Your task to perform on an android device: allow notifications from all sites in the chrome app Image 0: 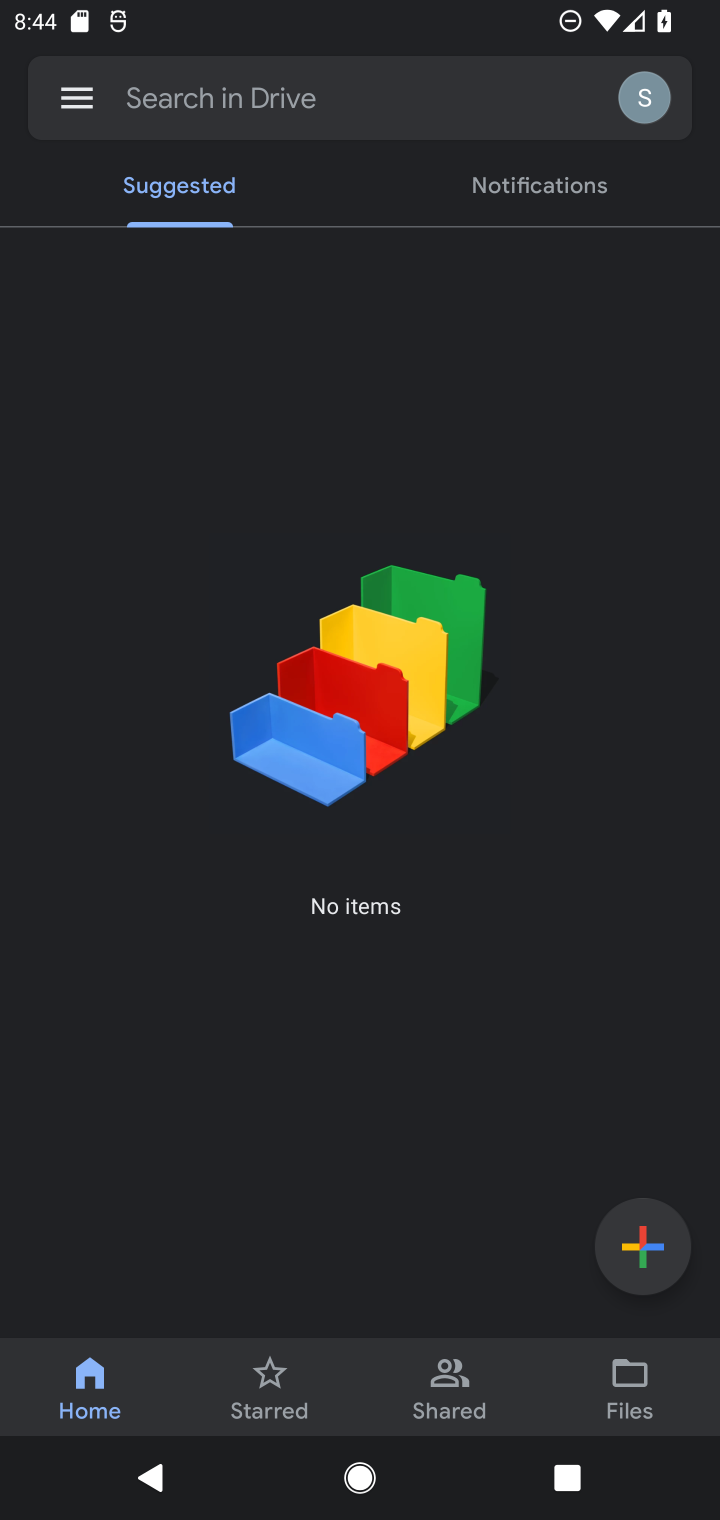
Step 0: press home button
Your task to perform on an android device: allow notifications from all sites in the chrome app Image 1: 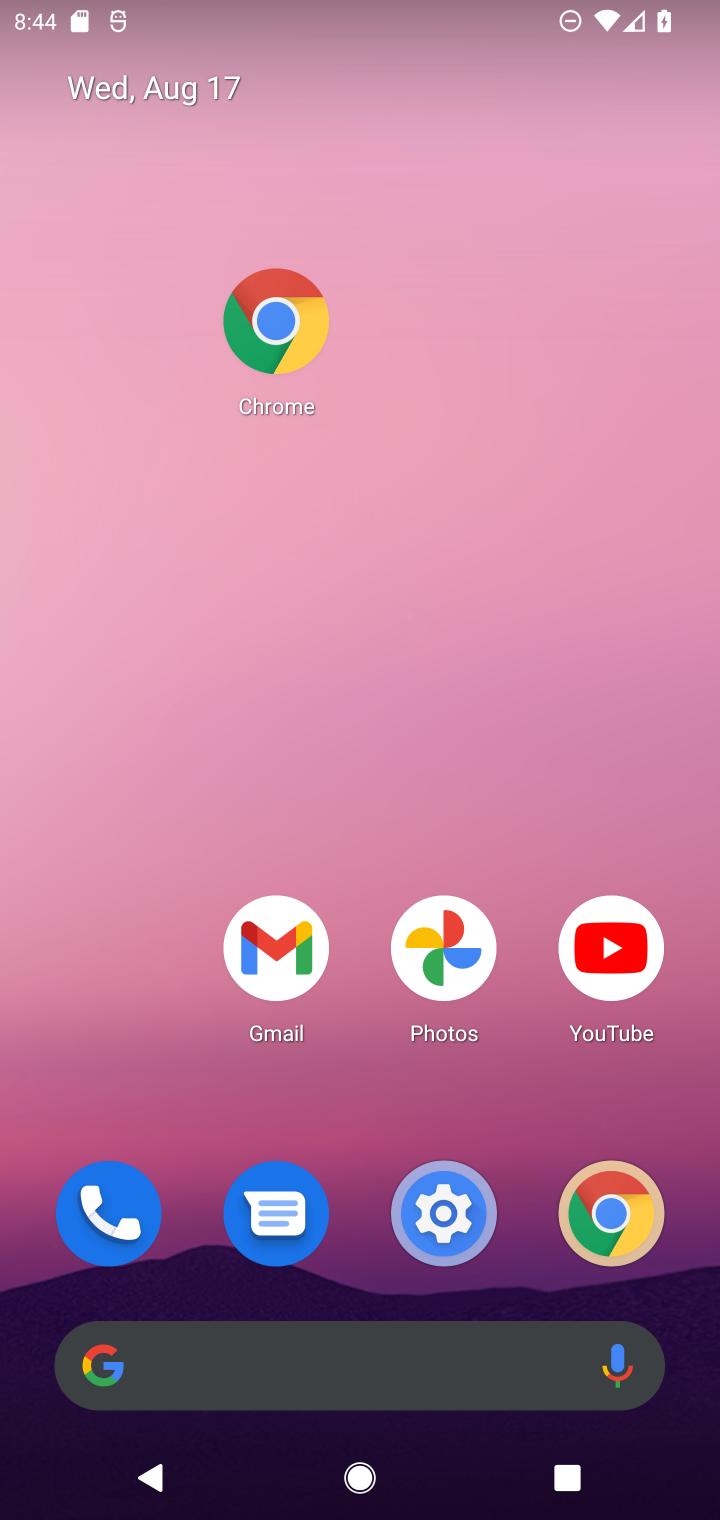
Step 1: click (634, 1211)
Your task to perform on an android device: allow notifications from all sites in the chrome app Image 2: 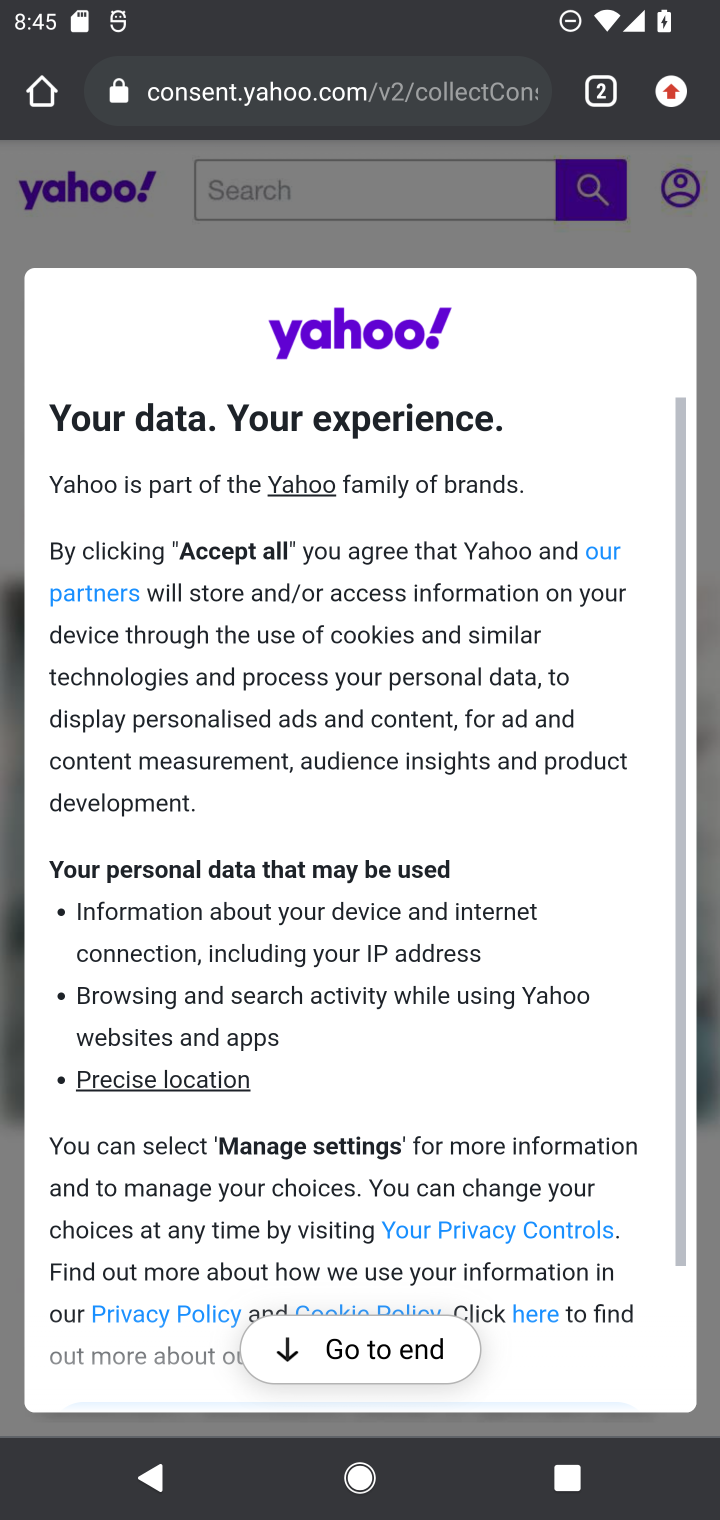
Step 2: press home button
Your task to perform on an android device: allow notifications from all sites in the chrome app Image 3: 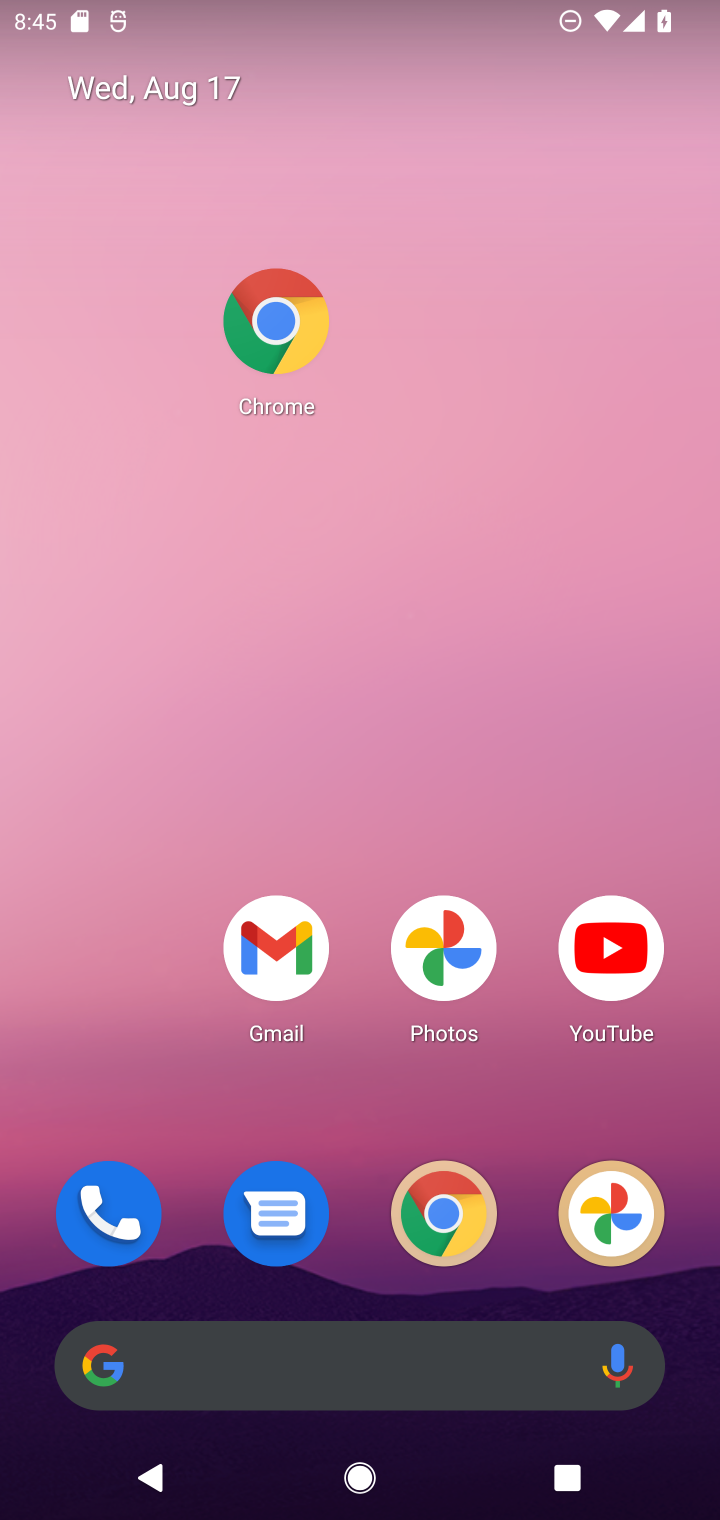
Step 3: click (415, 1175)
Your task to perform on an android device: allow notifications from all sites in the chrome app Image 4: 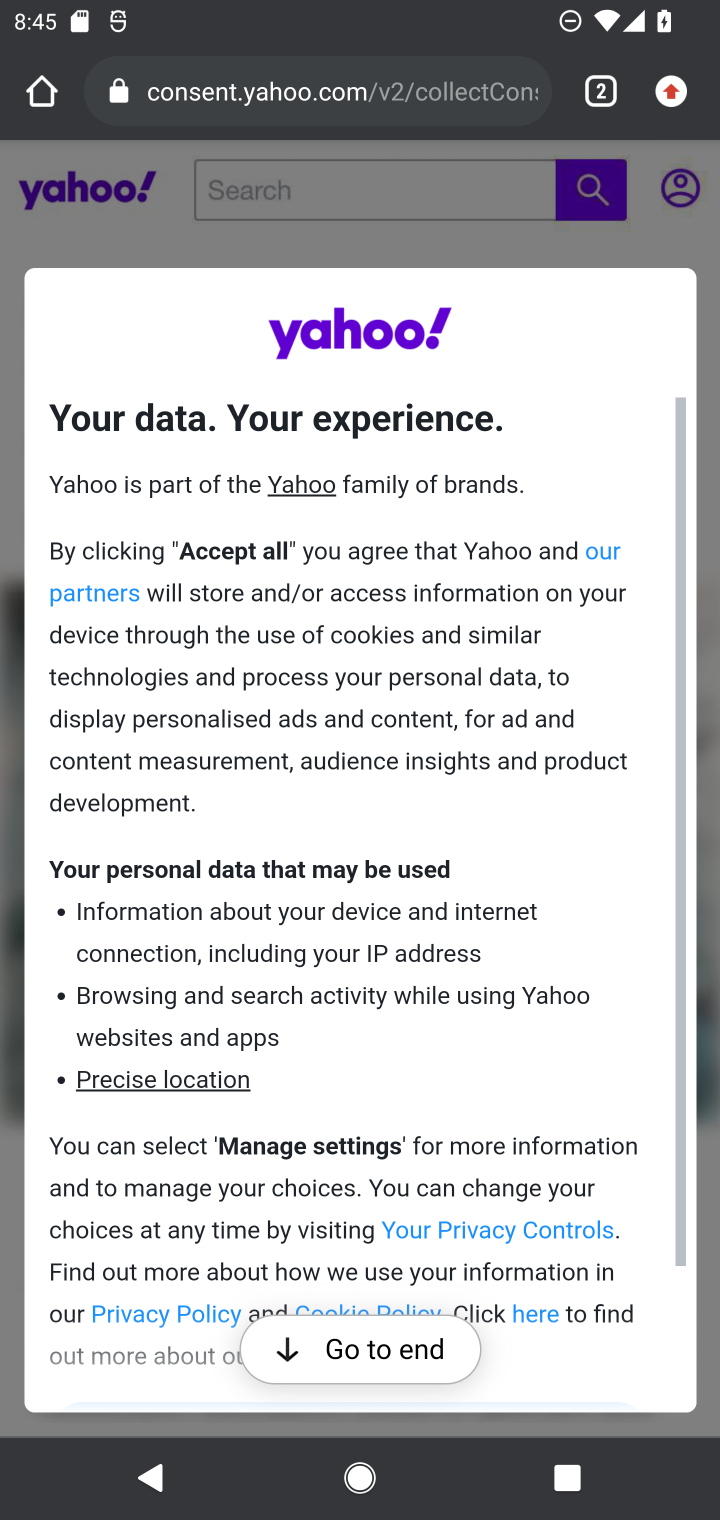
Step 4: click (664, 94)
Your task to perform on an android device: allow notifications from all sites in the chrome app Image 5: 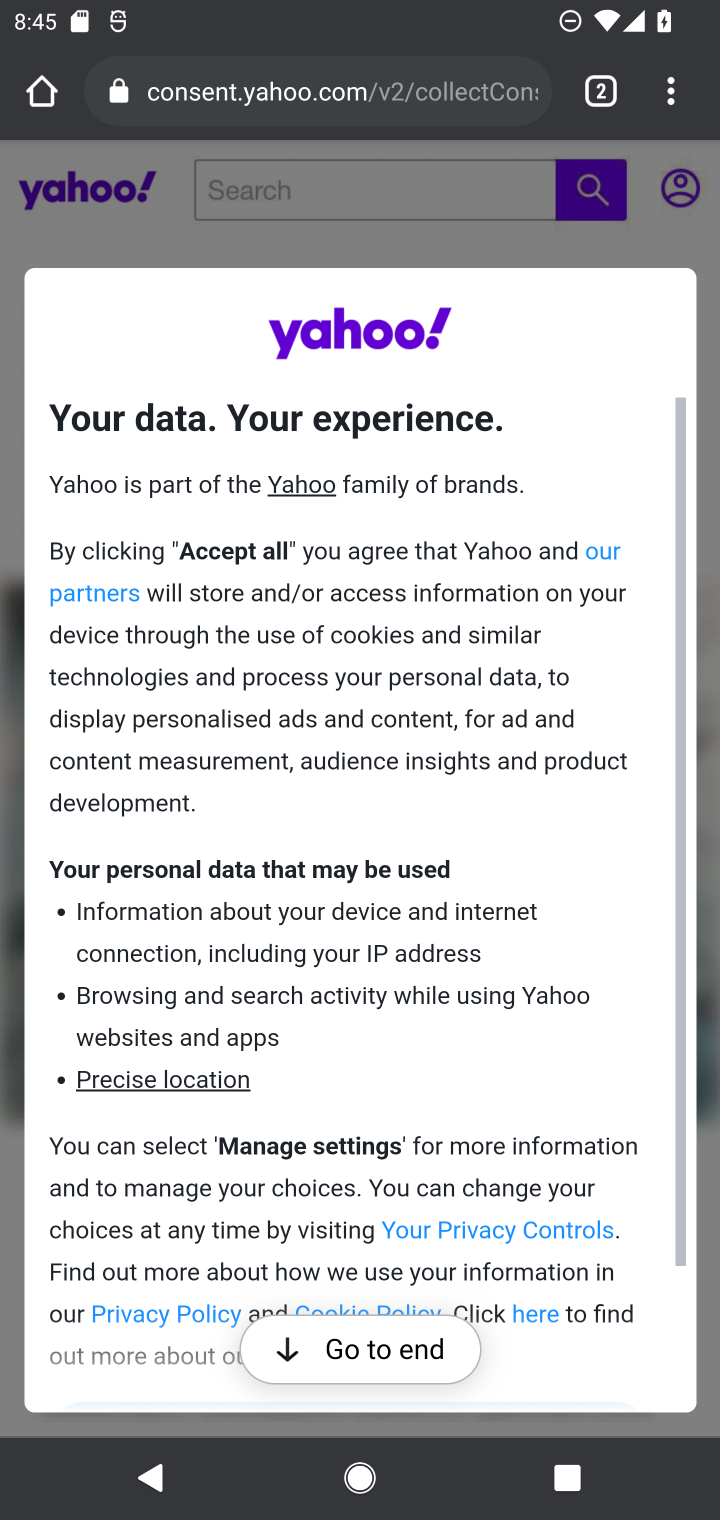
Step 5: click (669, 95)
Your task to perform on an android device: allow notifications from all sites in the chrome app Image 6: 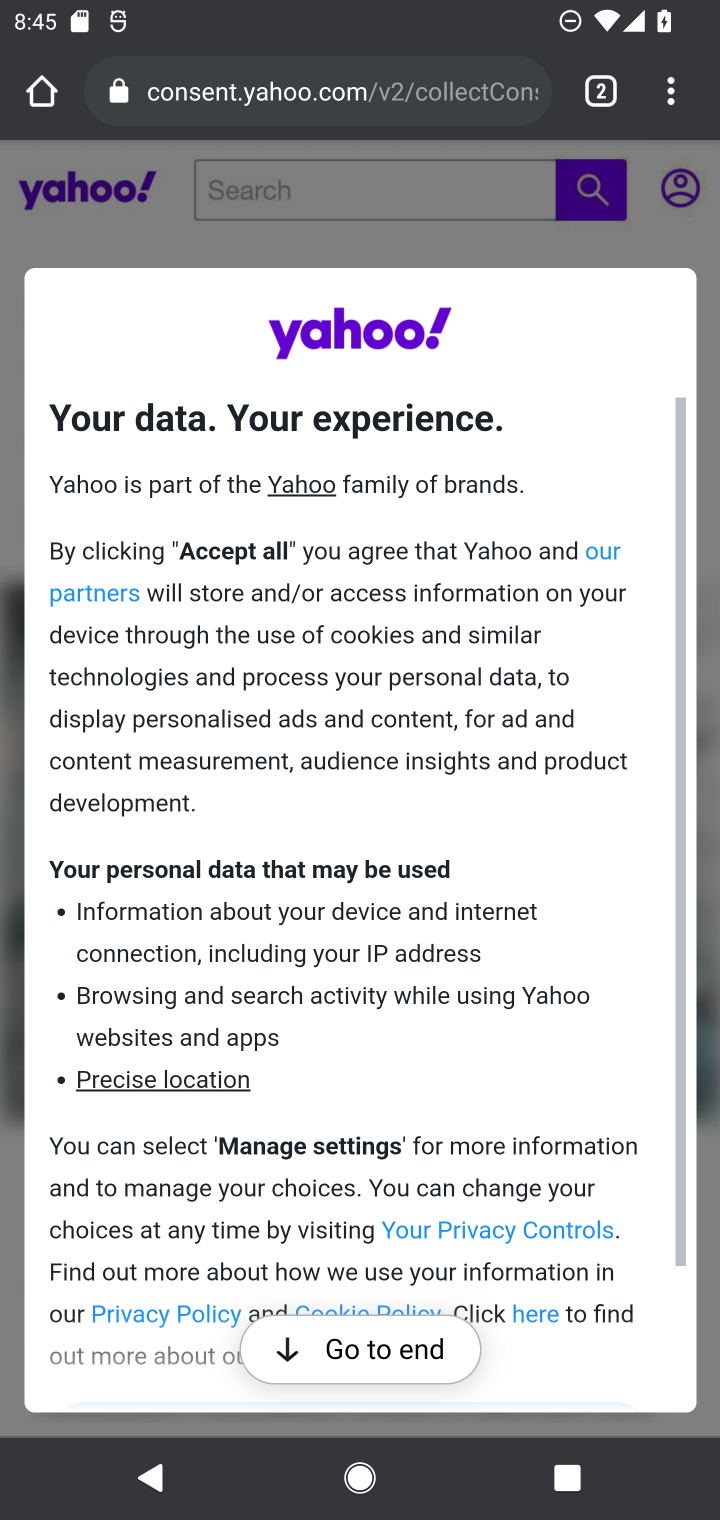
Step 6: click (669, 95)
Your task to perform on an android device: allow notifications from all sites in the chrome app Image 7: 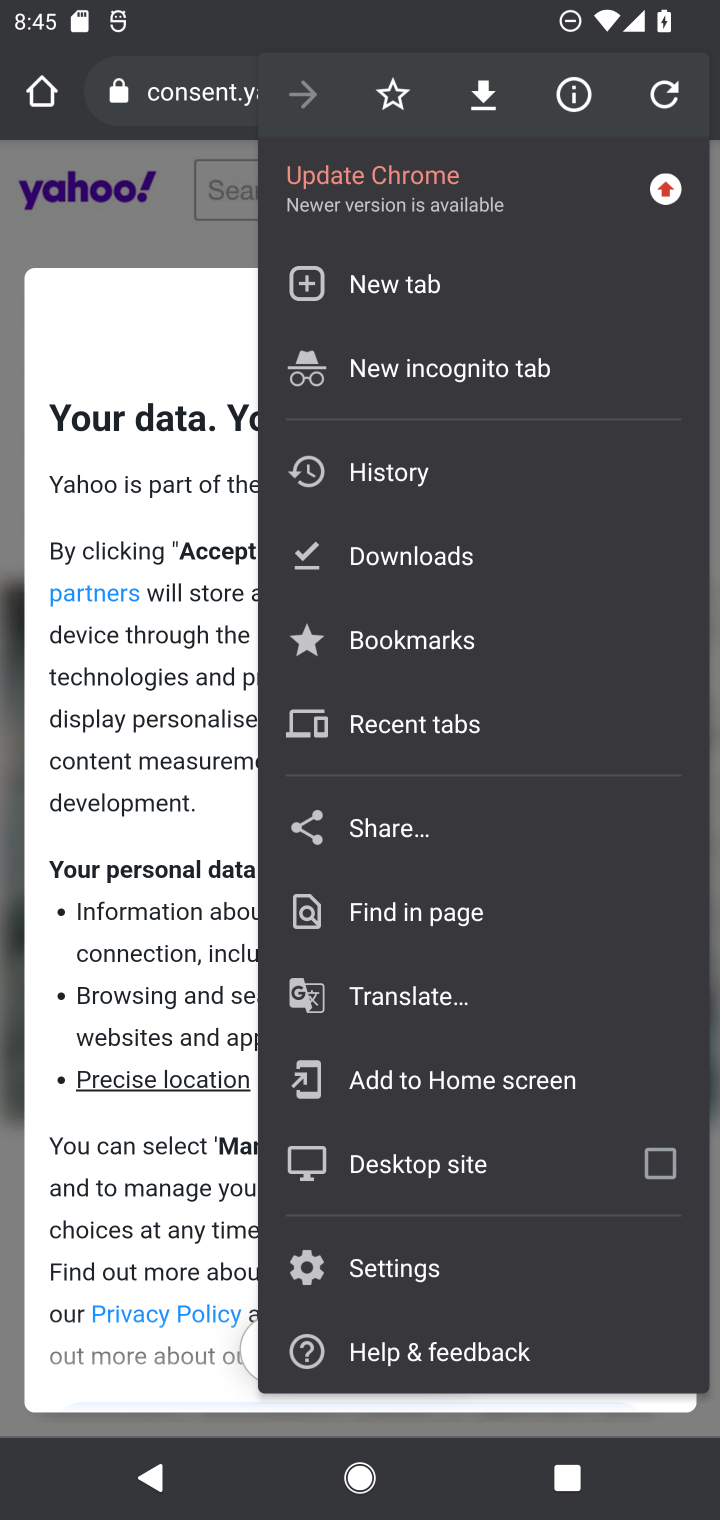
Step 7: click (431, 1242)
Your task to perform on an android device: allow notifications from all sites in the chrome app Image 8: 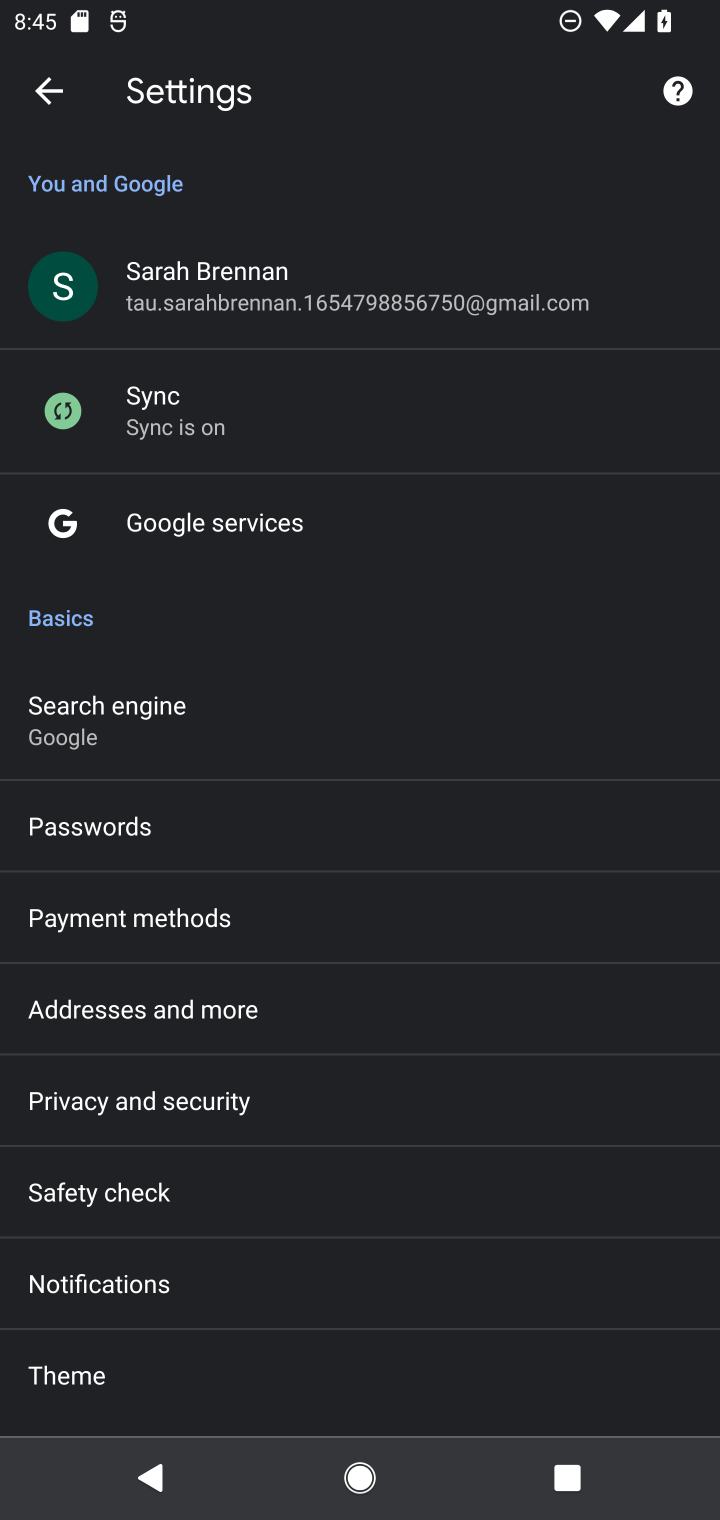
Step 8: click (387, 1305)
Your task to perform on an android device: allow notifications from all sites in the chrome app Image 9: 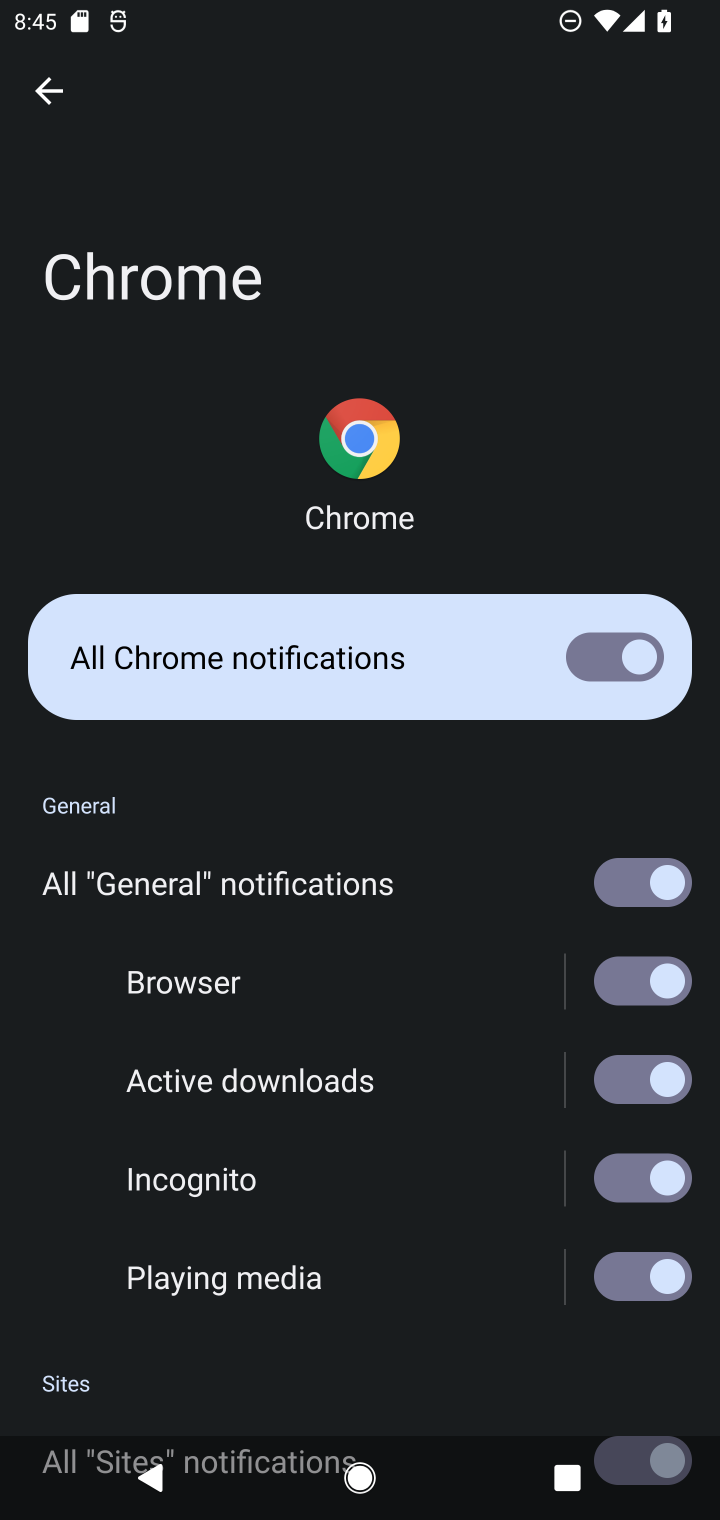
Step 9: click (579, 680)
Your task to perform on an android device: allow notifications from all sites in the chrome app Image 10: 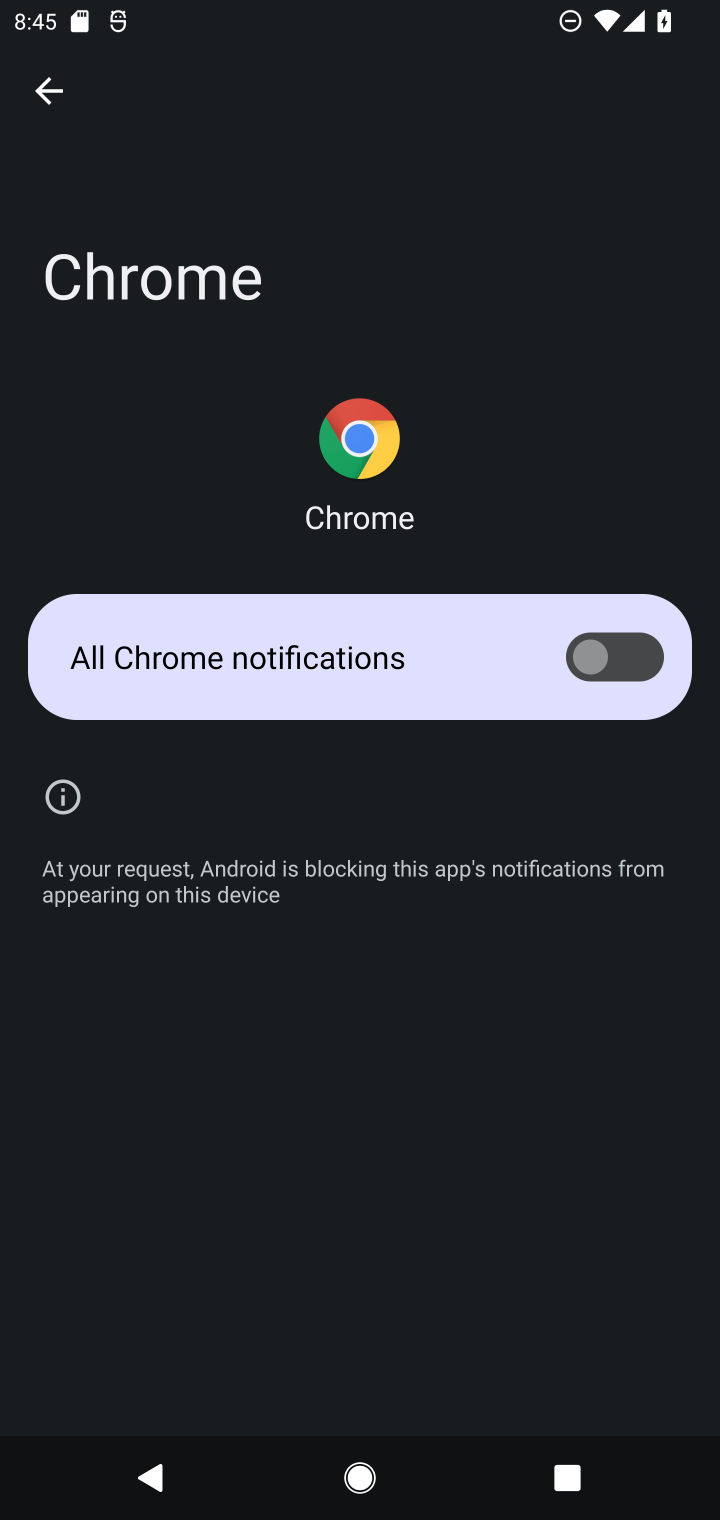
Step 10: task complete